Your task to perform on an android device: turn smart compose on in the gmail app Image 0: 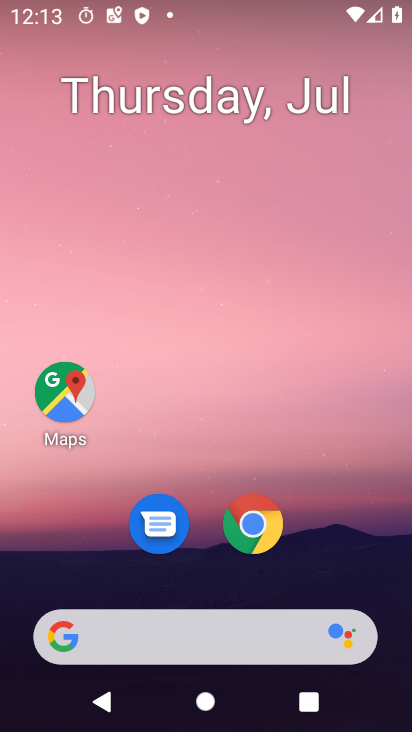
Step 0: drag from (201, 644) to (339, 101)
Your task to perform on an android device: turn smart compose on in the gmail app Image 1: 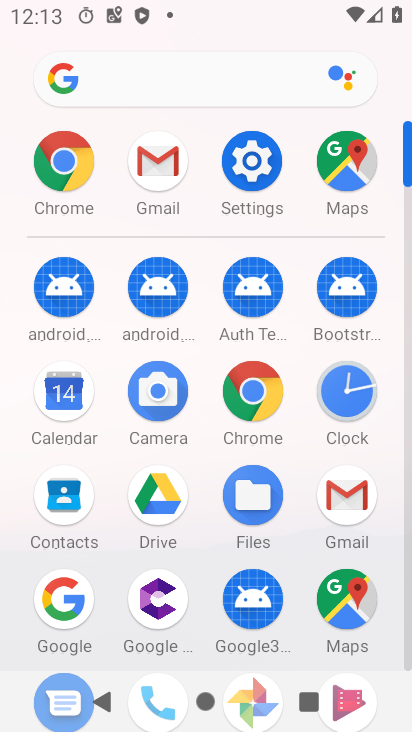
Step 1: click (160, 170)
Your task to perform on an android device: turn smart compose on in the gmail app Image 2: 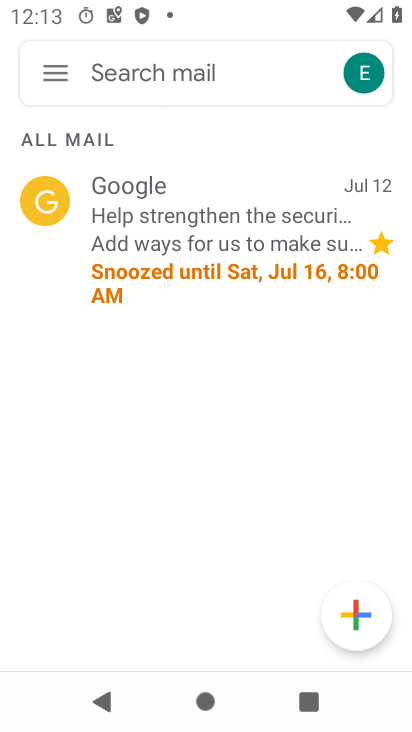
Step 2: click (58, 66)
Your task to perform on an android device: turn smart compose on in the gmail app Image 3: 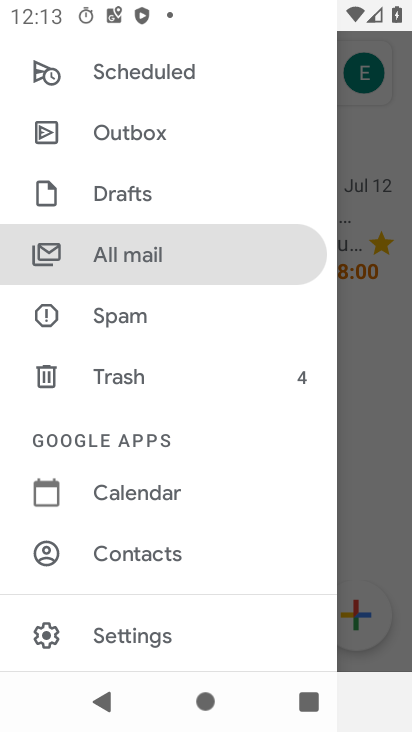
Step 3: drag from (174, 594) to (276, 118)
Your task to perform on an android device: turn smart compose on in the gmail app Image 4: 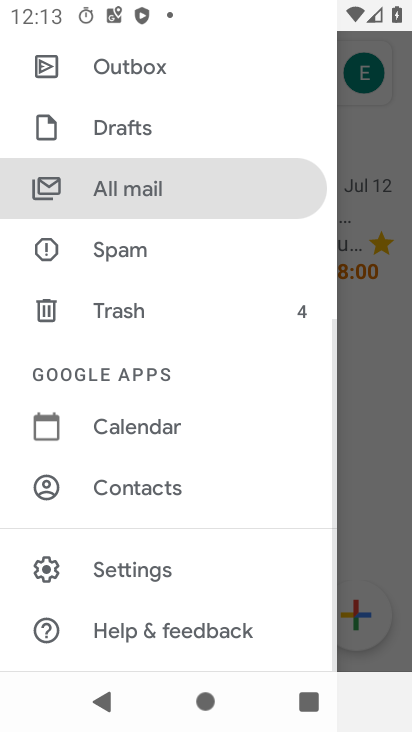
Step 4: click (132, 578)
Your task to perform on an android device: turn smart compose on in the gmail app Image 5: 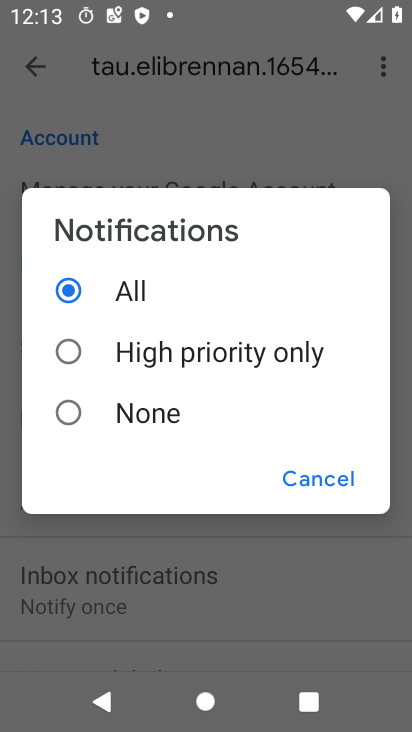
Step 5: click (332, 481)
Your task to perform on an android device: turn smart compose on in the gmail app Image 6: 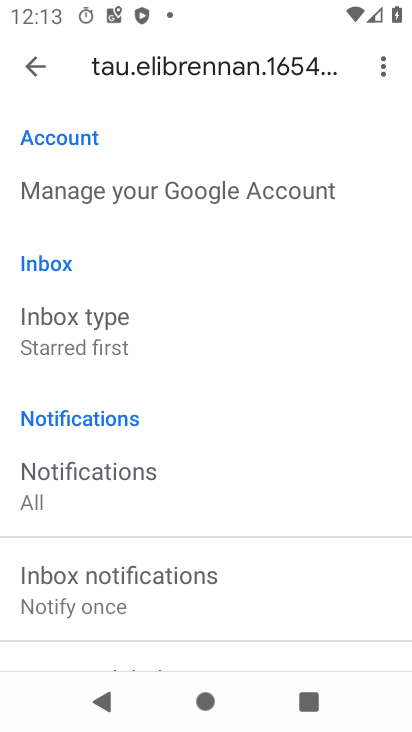
Step 6: task complete